Your task to perform on an android device: Open Wikipedia Image 0: 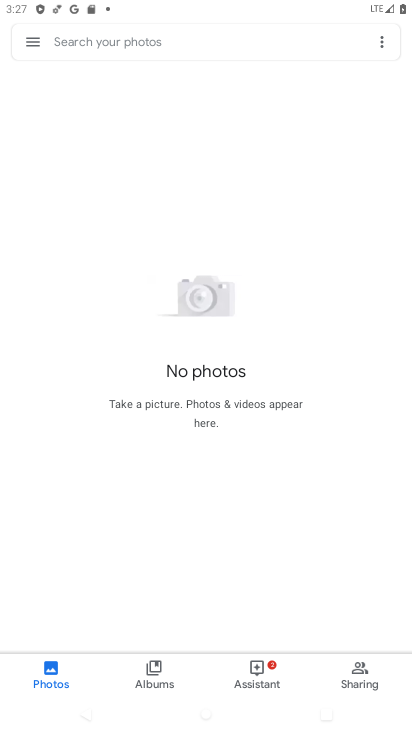
Step 0: press home button
Your task to perform on an android device: Open Wikipedia Image 1: 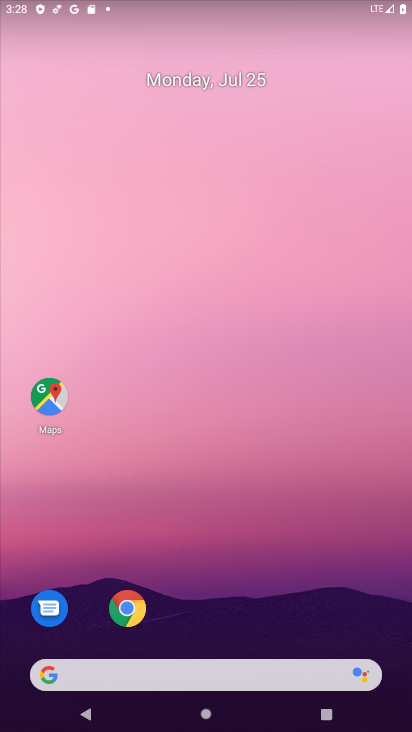
Step 1: click (118, 611)
Your task to perform on an android device: Open Wikipedia Image 2: 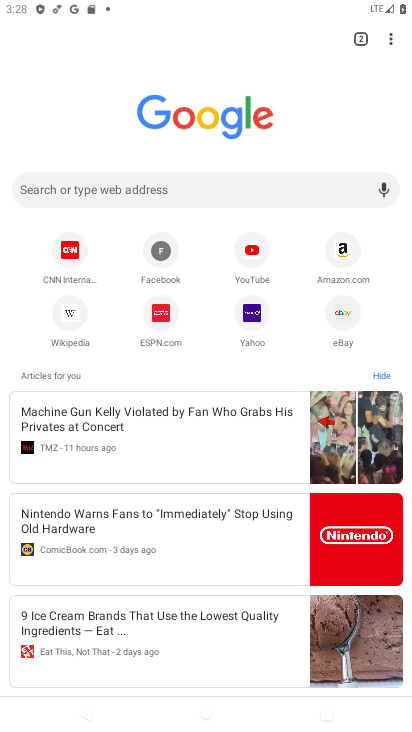
Step 2: click (59, 313)
Your task to perform on an android device: Open Wikipedia Image 3: 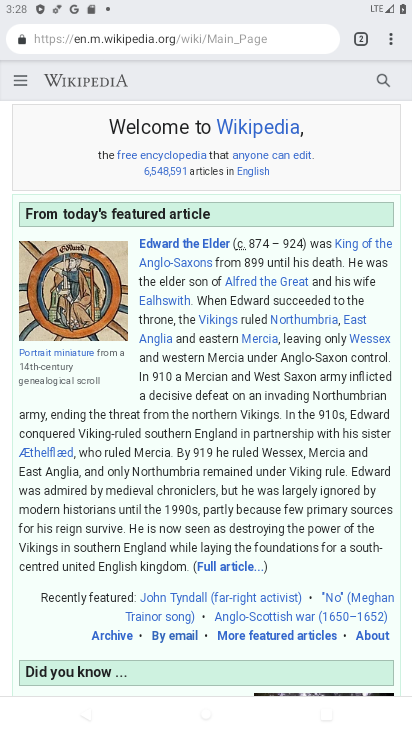
Step 3: task complete